Your task to perform on an android device: Go to settings Image 0: 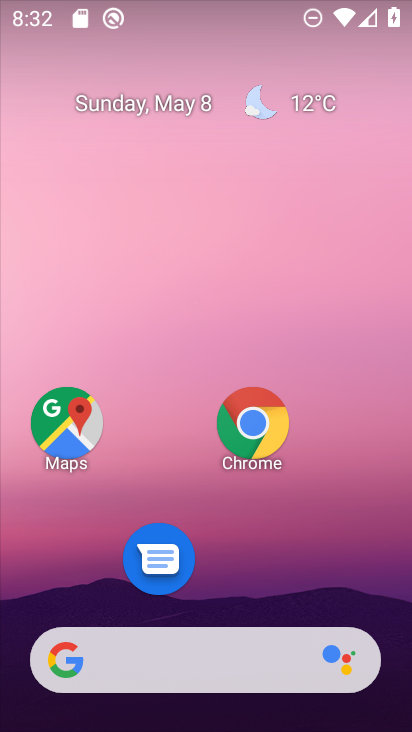
Step 0: drag from (389, 591) to (341, 15)
Your task to perform on an android device: Go to settings Image 1: 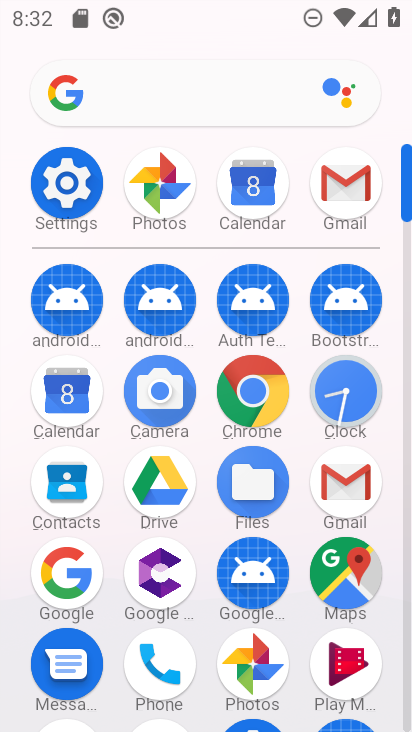
Step 1: click (70, 186)
Your task to perform on an android device: Go to settings Image 2: 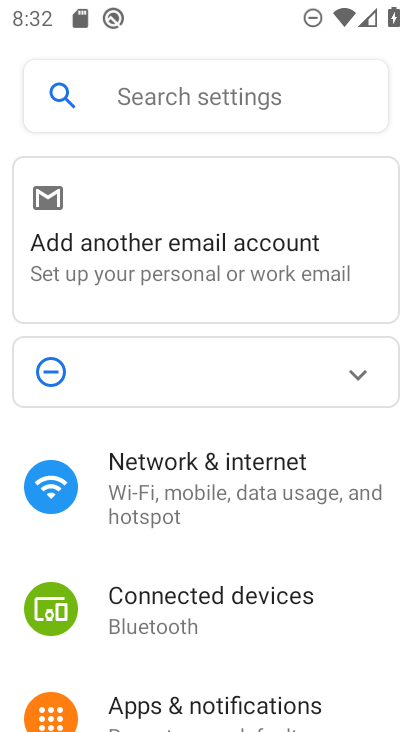
Step 2: task complete